Your task to perform on an android device: Add "apple airpods" to the cart on bestbuy, then select checkout. Image 0: 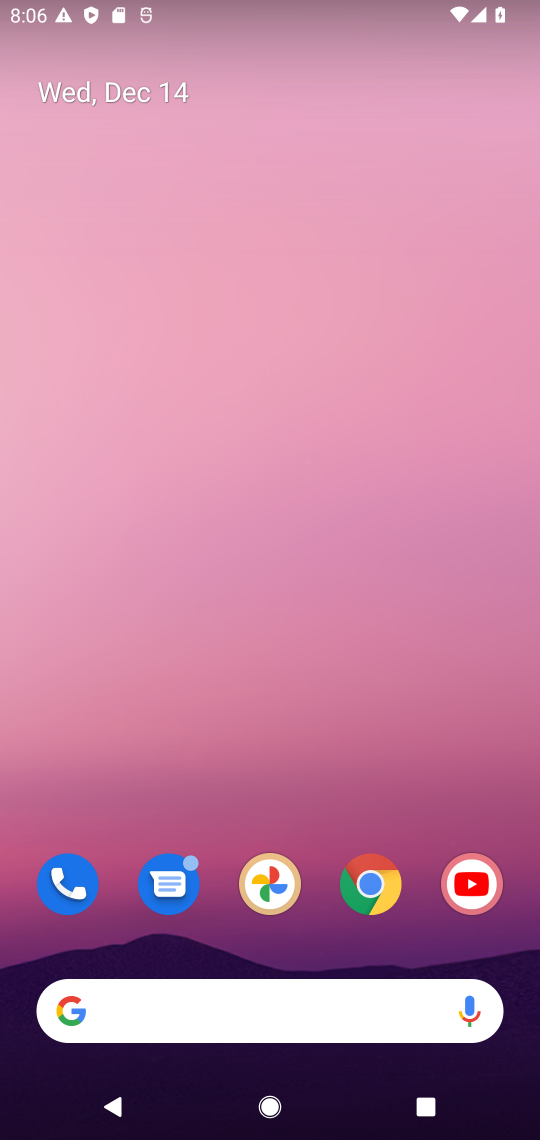
Step 0: click (367, 887)
Your task to perform on an android device: Add "apple airpods" to the cart on bestbuy, then select checkout. Image 1: 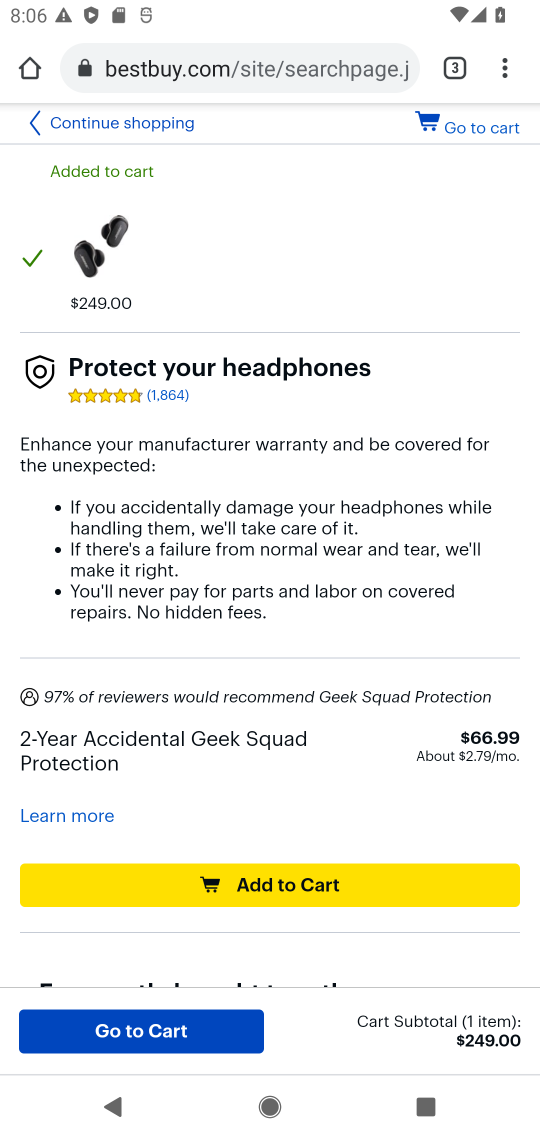
Step 1: click (139, 124)
Your task to perform on an android device: Add "apple airpods" to the cart on bestbuy, then select checkout. Image 2: 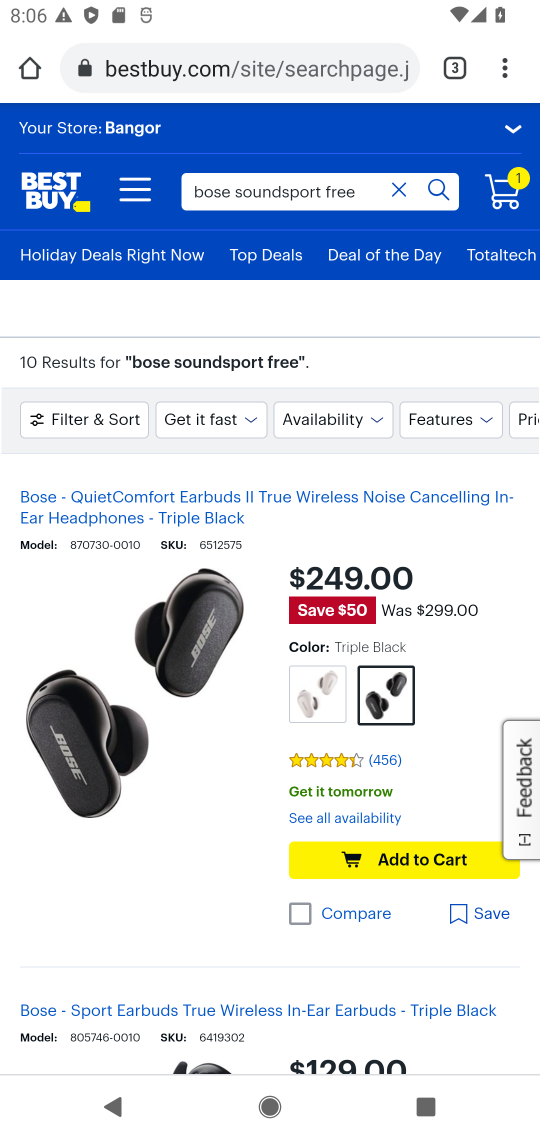
Step 2: click (402, 190)
Your task to perform on an android device: Add "apple airpods" to the cart on bestbuy, then select checkout. Image 3: 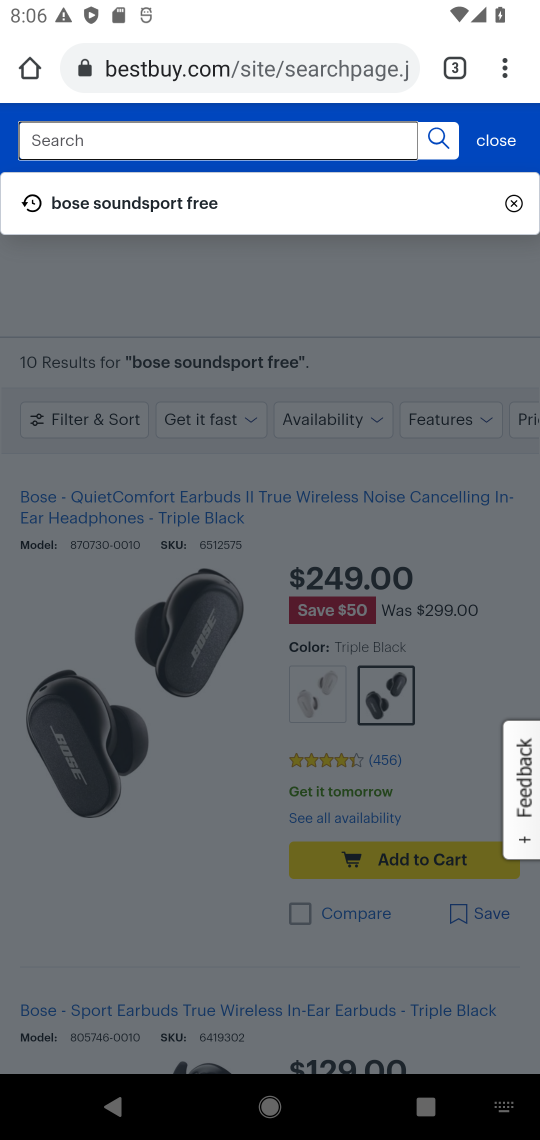
Step 3: type "apple airpods"
Your task to perform on an android device: Add "apple airpods" to the cart on bestbuy, then select checkout. Image 4: 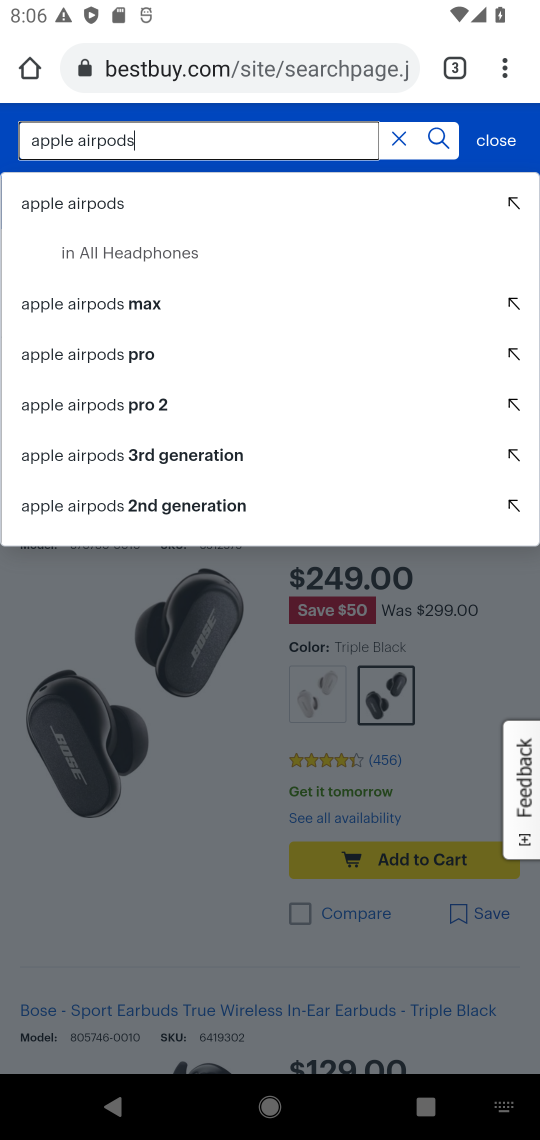
Step 4: click (31, 206)
Your task to perform on an android device: Add "apple airpods" to the cart on bestbuy, then select checkout. Image 5: 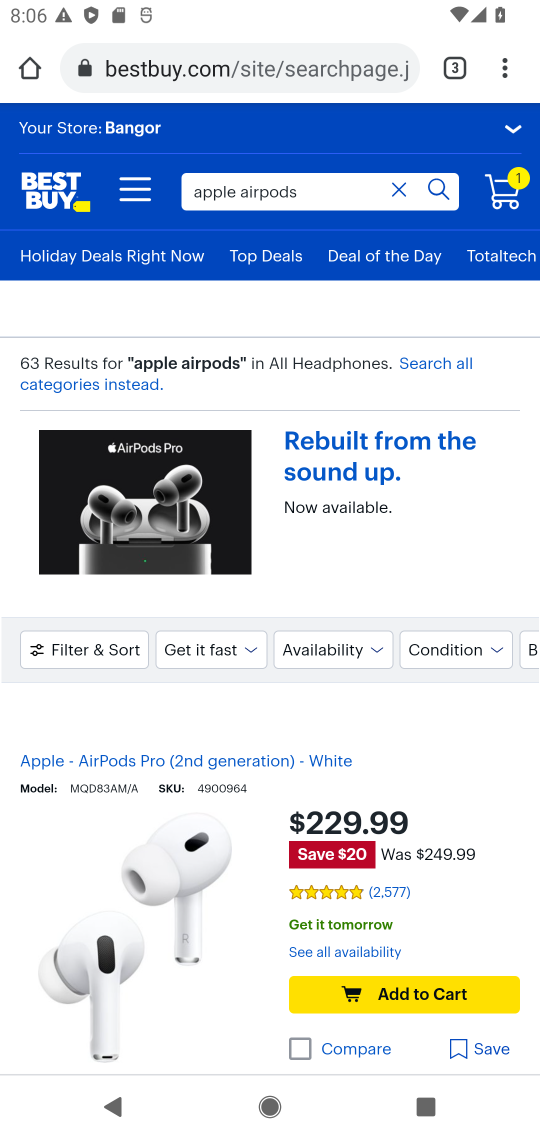
Step 5: click (391, 997)
Your task to perform on an android device: Add "apple airpods" to the cart on bestbuy, then select checkout. Image 6: 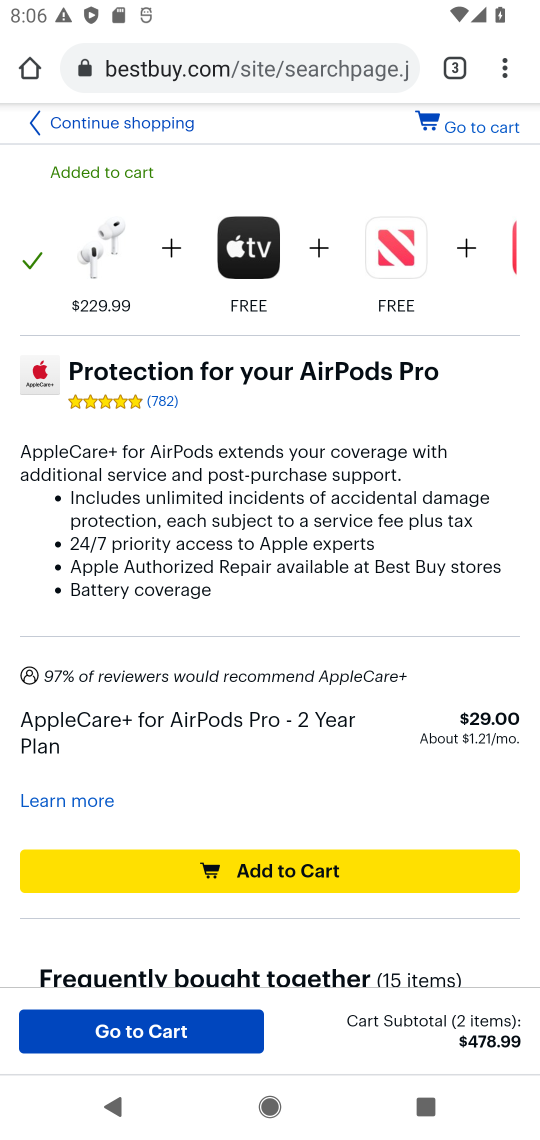
Step 6: task complete